Your task to perform on an android device: Turn on the flashlight Image 0: 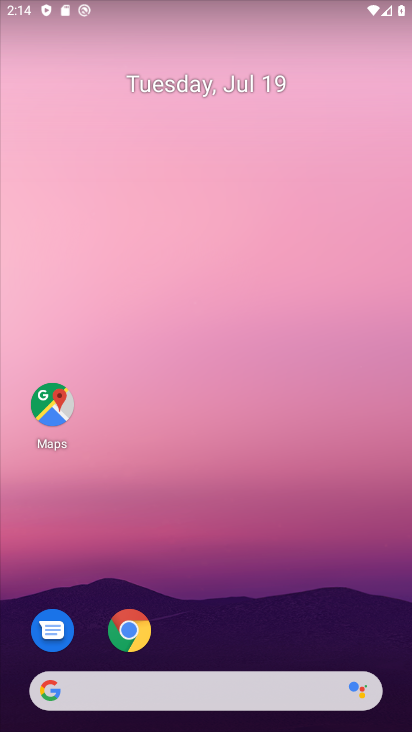
Step 0: drag from (242, 603) to (248, 37)
Your task to perform on an android device: Turn on the flashlight Image 1: 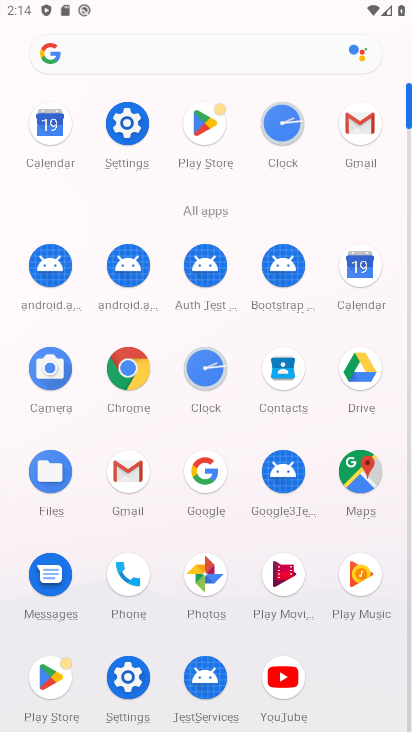
Step 1: click (129, 124)
Your task to perform on an android device: Turn on the flashlight Image 2: 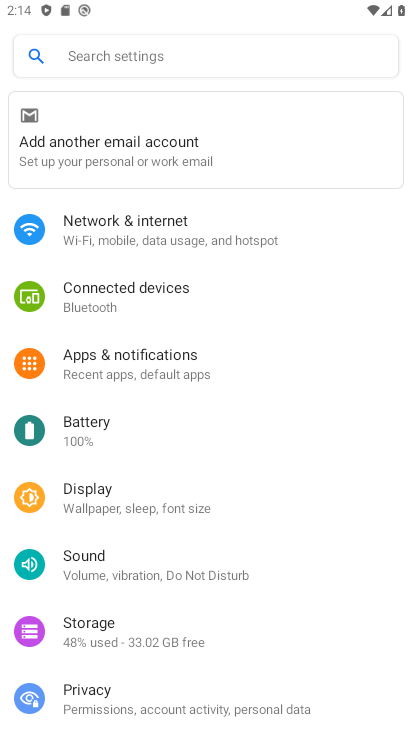
Step 2: click (199, 54)
Your task to perform on an android device: Turn on the flashlight Image 3: 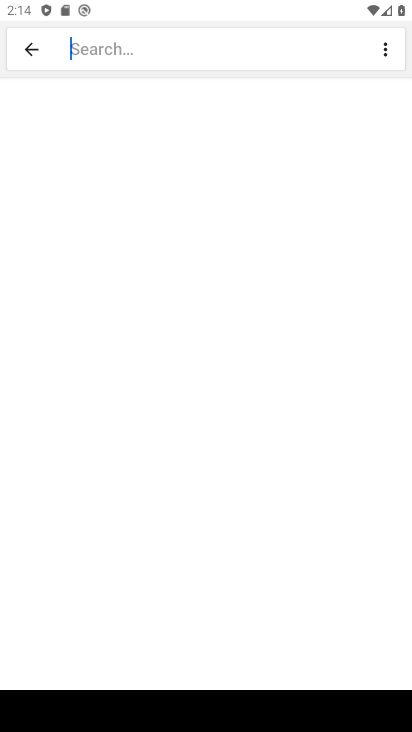
Step 3: type "Flashlight"
Your task to perform on an android device: Turn on the flashlight Image 4: 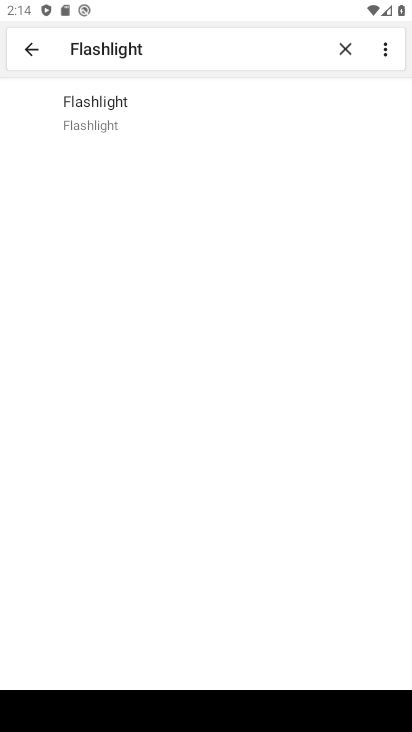
Step 4: click (98, 111)
Your task to perform on an android device: Turn on the flashlight Image 5: 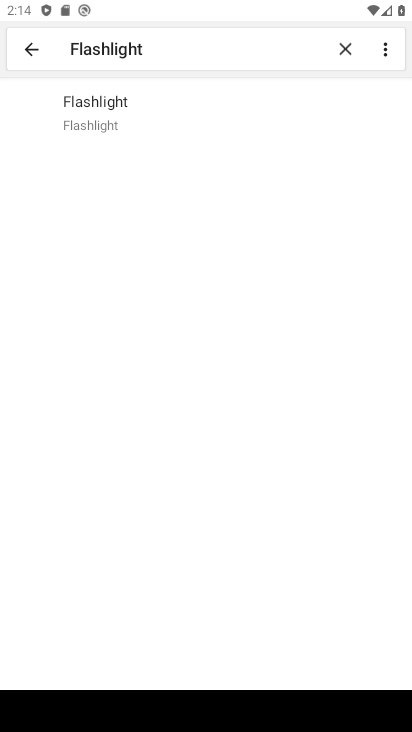
Step 5: click (101, 111)
Your task to perform on an android device: Turn on the flashlight Image 6: 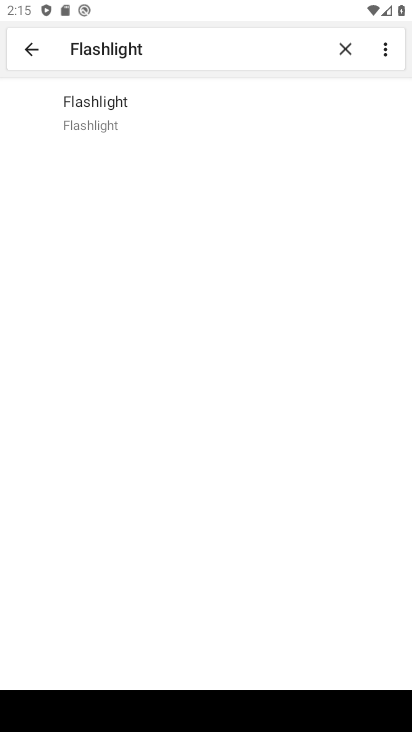
Step 6: task complete